Your task to perform on an android device: Open calendar and show me the third week of next month Image 0: 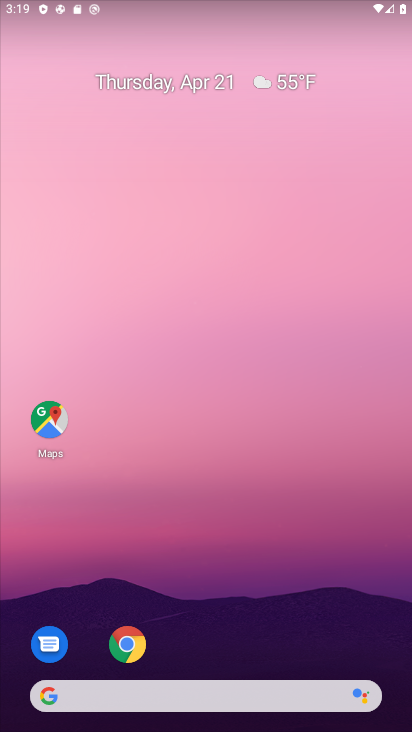
Step 0: drag from (221, 718) to (242, 88)
Your task to perform on an android device: Open calendar and show me the third week of next month Image 1: 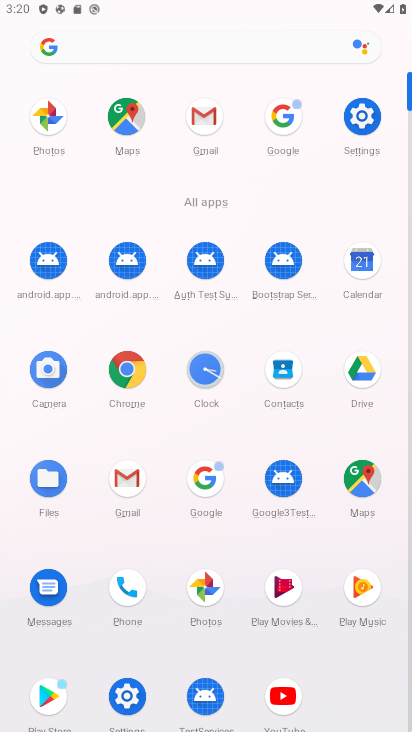
Step 1: click (361, 262)
Your task to perform on an android device: Open calendar and show me the third week of next month Image 2: 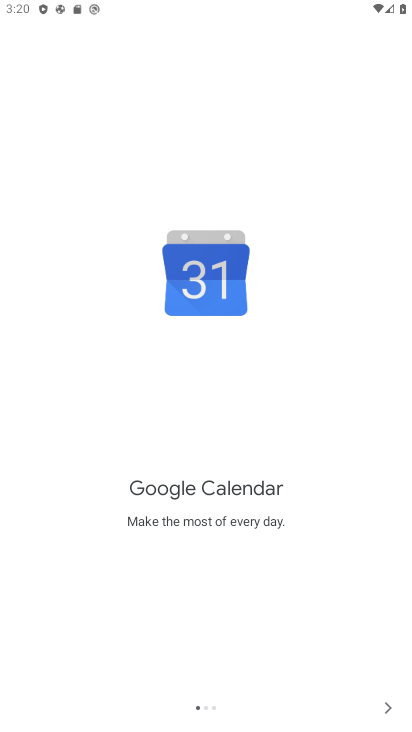
Step 2: click (387, 706)
Your task to perform on an android device: Open calendar and show me the third week of next month Image 3: 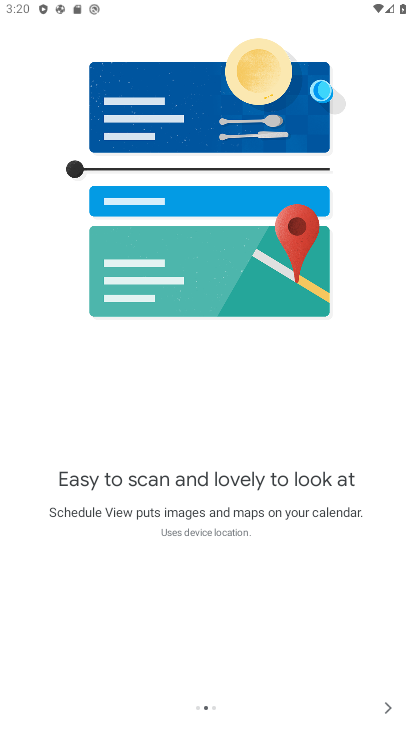
Step 3: click (387, 706)
Your task to perform on an android device: Open calendar and show me the third week of next month Image 4: 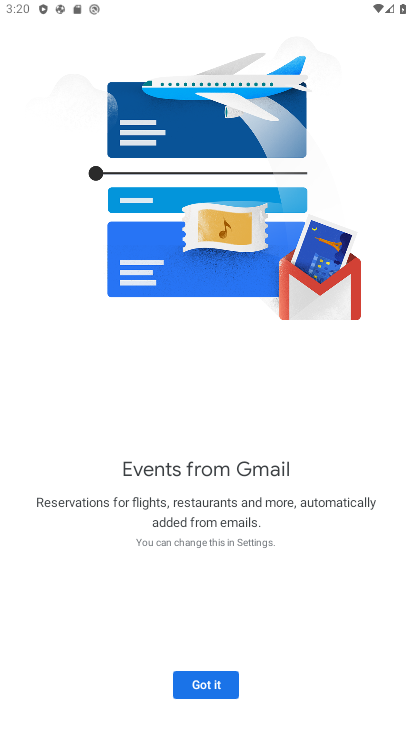
Step 4: click (206, 682)
Your task to perform on an android device: Open calendar and show me the third week of next month Image 5: 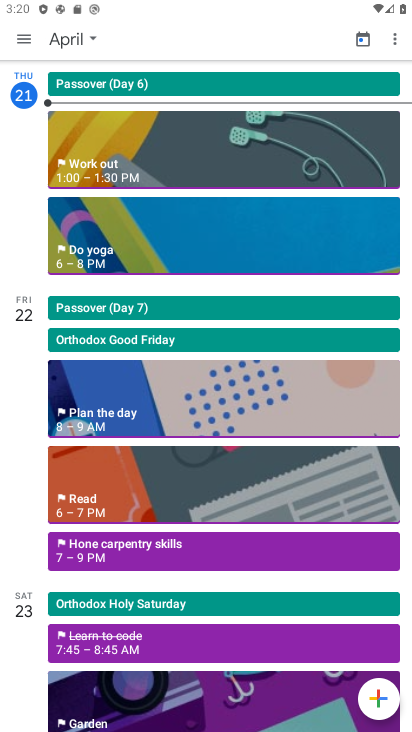
Step 5: click (63, 36)
Your task to perform on an android device: Open calendar and show me the third week of next month Image 6: 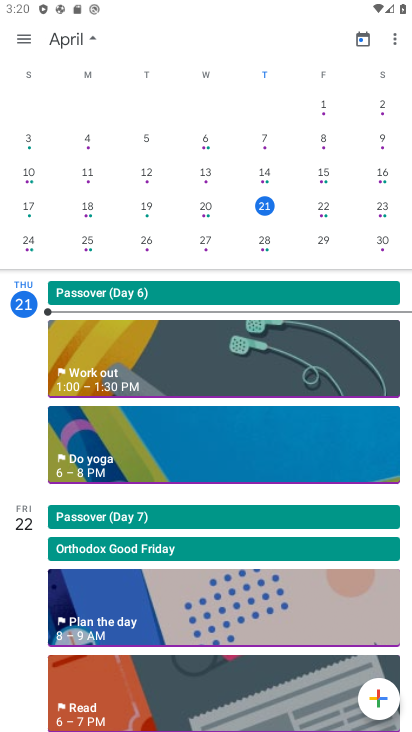
Step 6: drag from (362, 205) to (5, 163)
Your task to perform on an android device: Open calendar and show me the third week of next month Image 7: 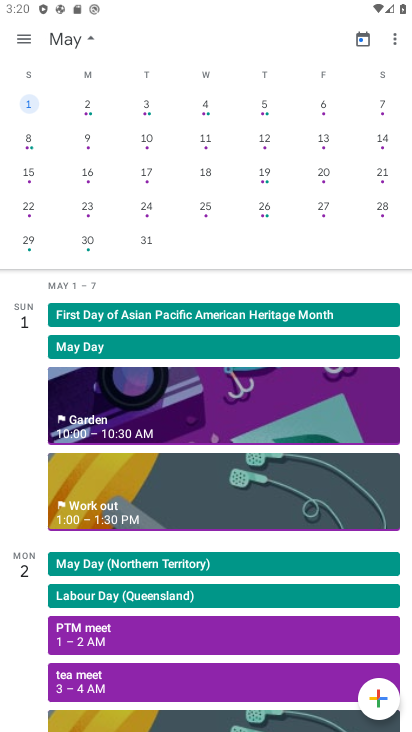
Step 7: click (89, 172)
Your task to perform on an android device: Open calendar and show me the third week of next month Image 8: 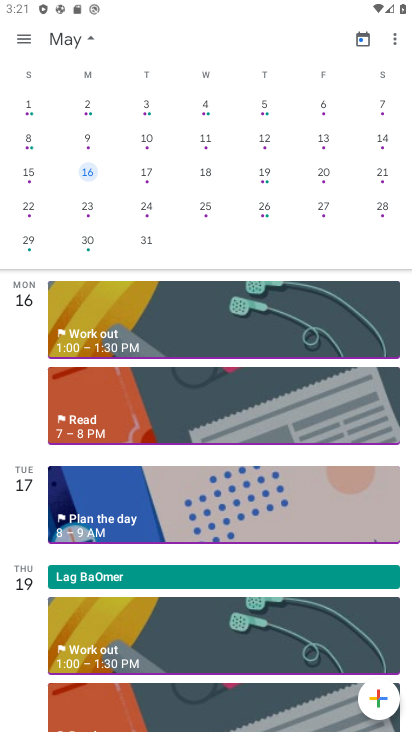
Step 8: task complete